Your task to perform on an android device: What is the news today? Image 0: 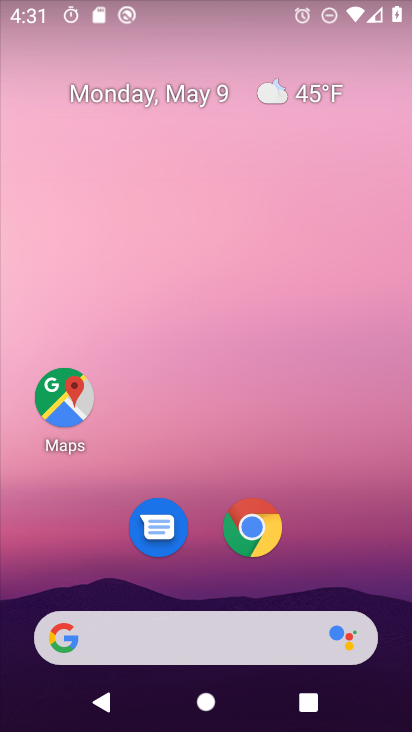
Step 0: click (260, 535)
Your task to perform on an android device: What is the news today? Image 1: 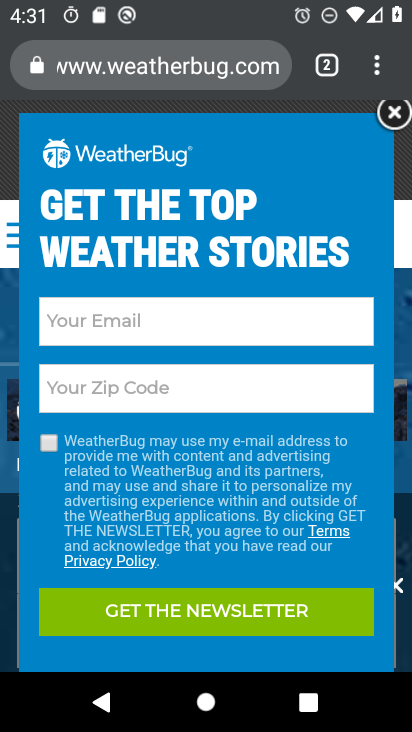
Step 1: click (185, 61)
Your task to perform on an android device: What is the news today? Image 2: 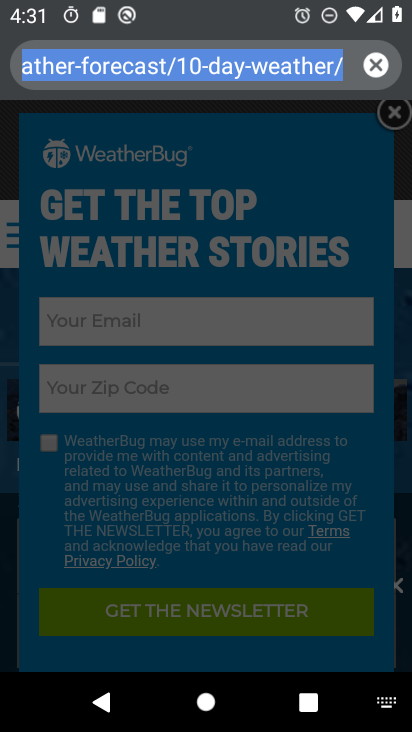
Step 2: drag from (348, 227) to (388, 731)
Your task to perform on an android device: What is the news today? Image 3: 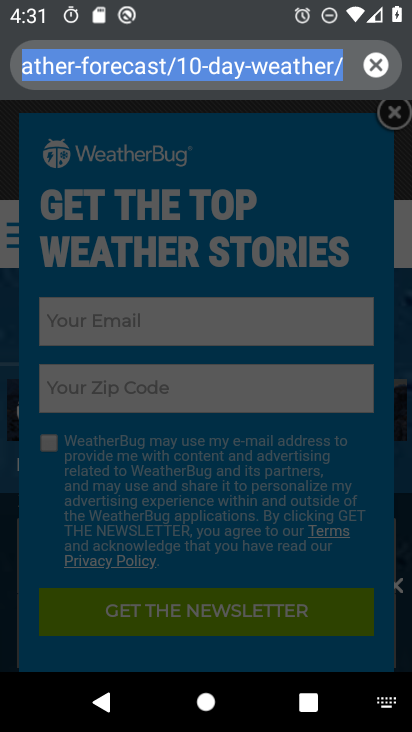
Step 3: type "What is the news today?"
Your task to perform on an android device: What is the news today? Image 4: 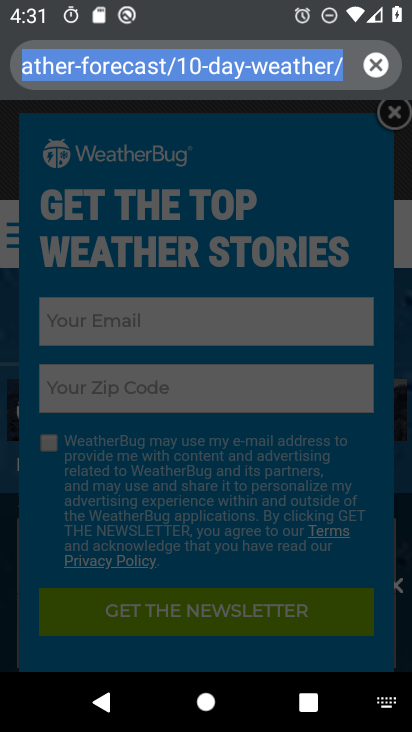
Step 4: drag from (388, 731) to (406, 319)
Your task to perform on an android device: What is the news today? Image 5: 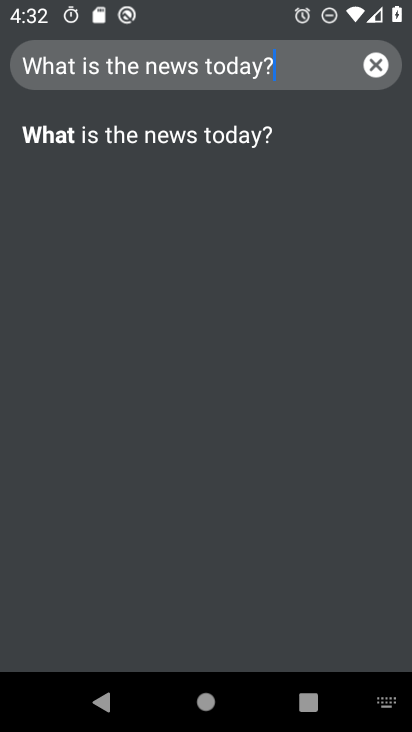
Step 5: click (179, 135)
Your task to perform on an android device: What is the news today? Image 6: 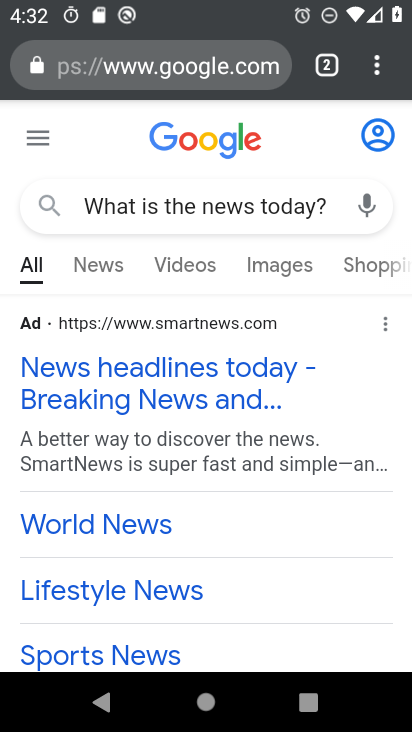
Step 6: click (132, 395)
Your task to perform on an android device: What is the news today? Image 7: 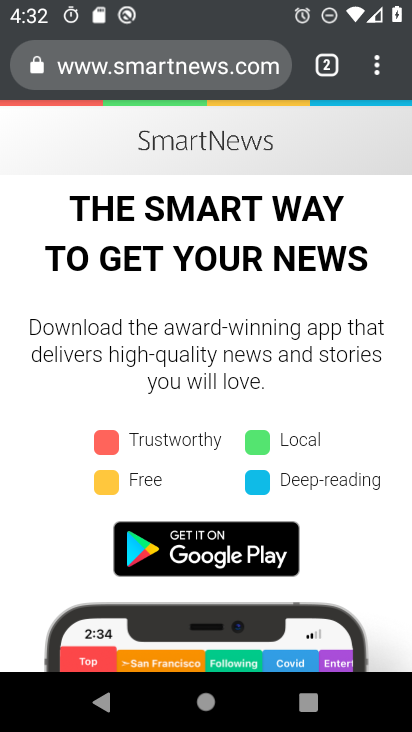
Step 7: task complete